Your task to perform on an android device: snooze an email in the gmail app Image 0: 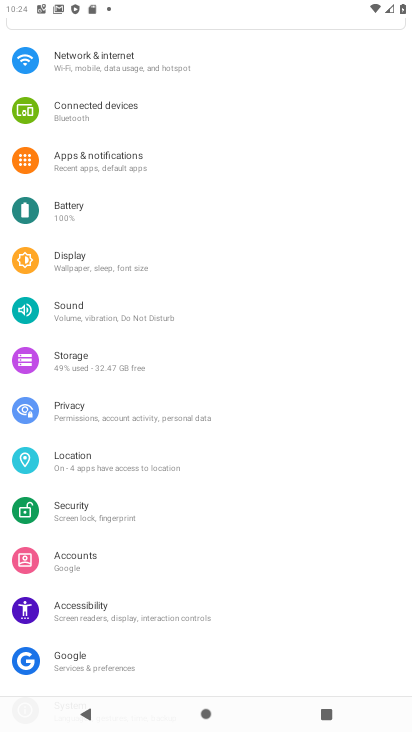
Step 0: press home button
Your task to perform on an android device: snooze an email in the gmail app Image 1: 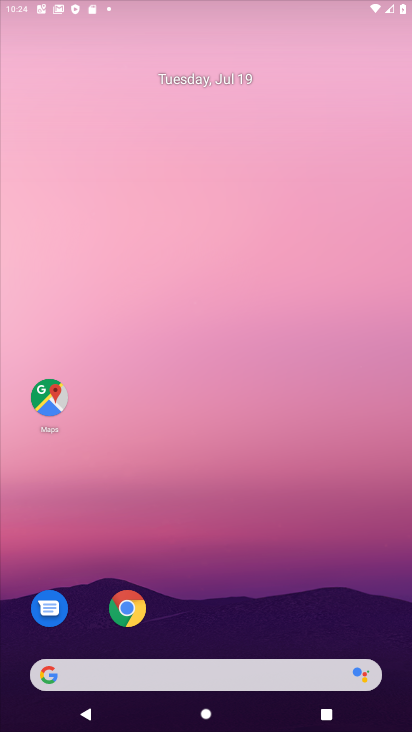
Step 1: drag from (313, 626) to (311, 139)
Your task to perform on an android device: snooze an email in the gmail app Image 2: 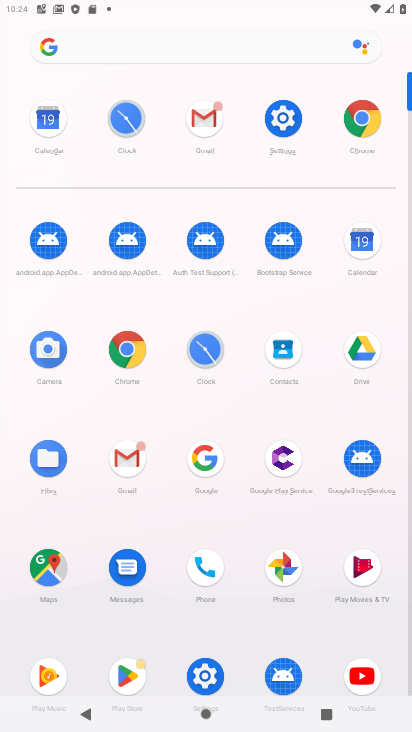
Step 2: click (212, 116)
Your task to perform on an android device: snooze an email in the gmail app Image 3: 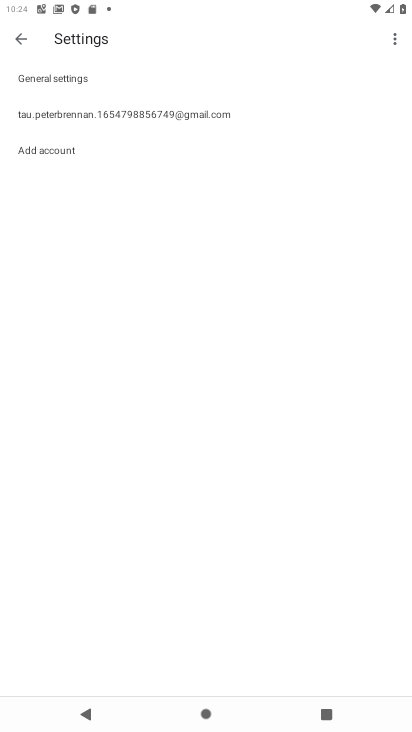
Step 3: click (19, 35)
Your task to perform on an android device: snooze an email in the gmail app Image 4: 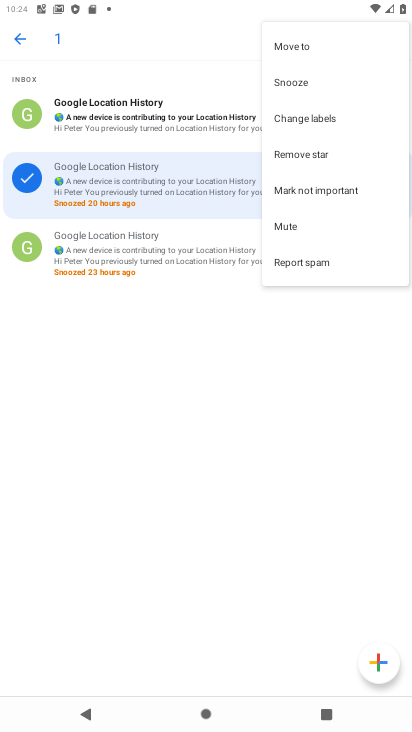
Step 4: click (23, 44)
Your task to perform on an android device: snooze an email in the gmail app Image 5: 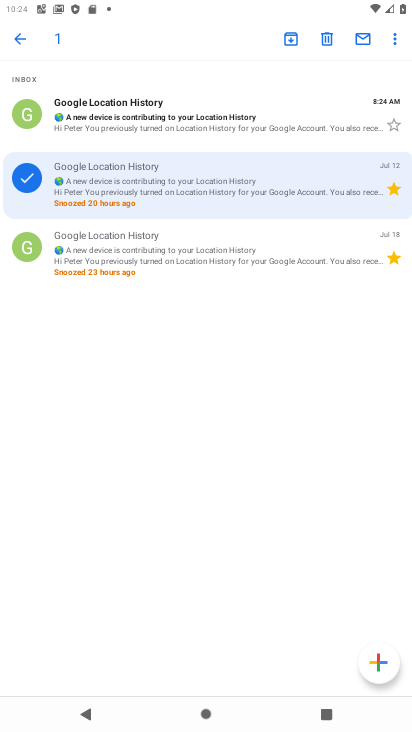
Step 5: click (20, 41)
Your task to perform on an android device: snooze an email in the gmail app Image 6: 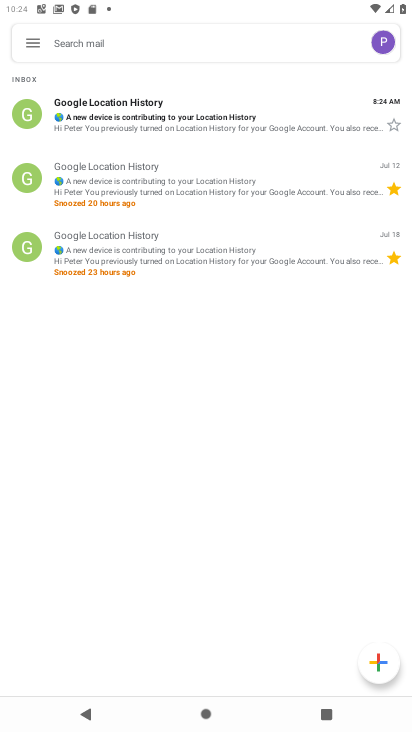
Step 6: click (229, 115)
Your task to perform on an android device: snooze an email in the gmail app Image 7: 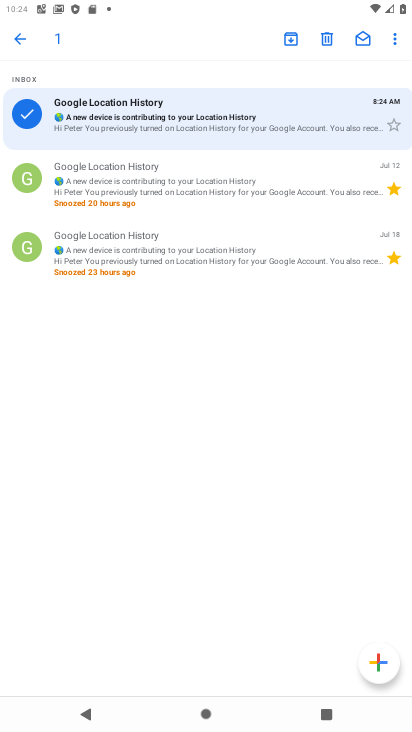
Step 7: click (391, 35)
Your task to perform on an android device: snooze an email in the gmail app Image 8: 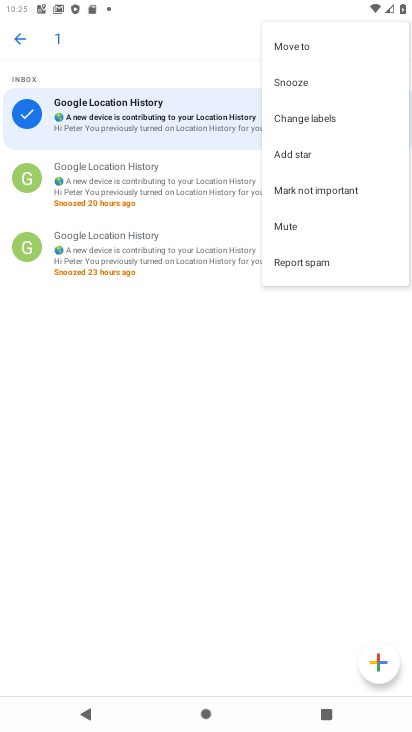
Step 8: click (308, 84)
Your task to perform on an android device: snooze an email in the gmail app Image 9: 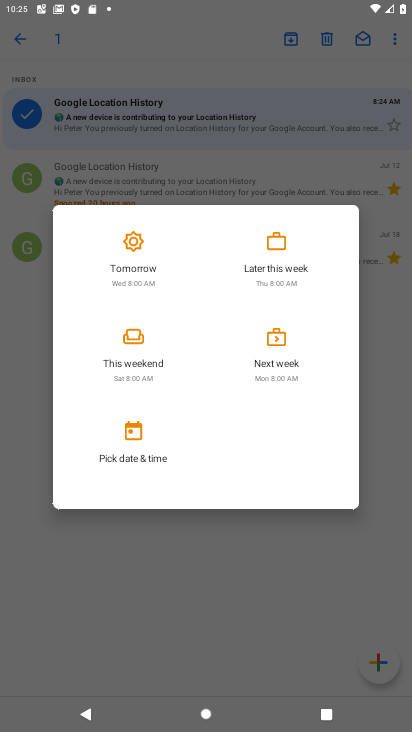
Step 9: click (145, 278)
Your task to perform on an android device: snooze an email in the gmail app Image 10: 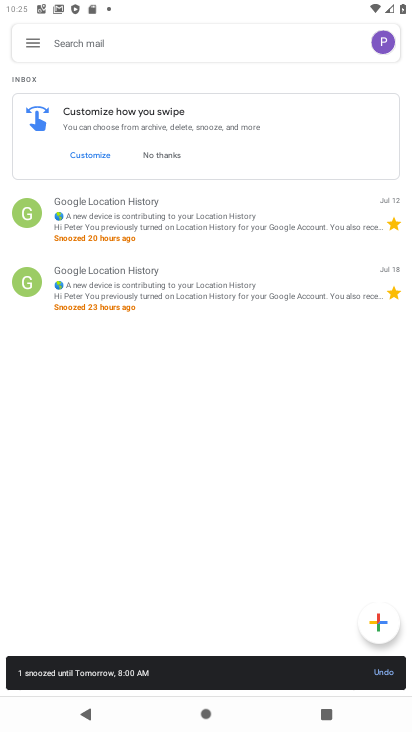
Step 10: task complete